Your task to perform on an android device: check google app version Image 0: 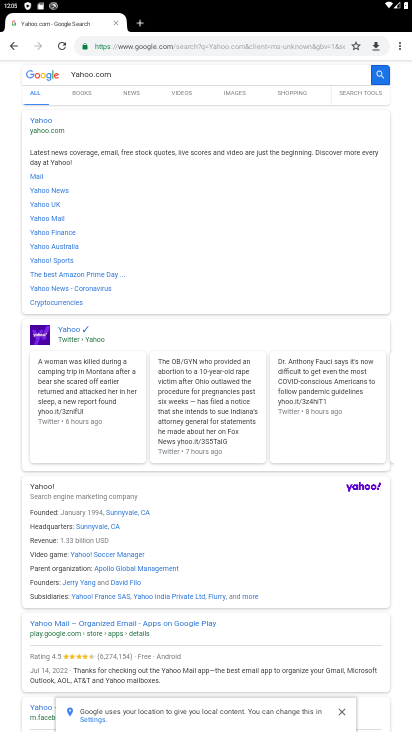
Step 0: press home button
Your task to perform on an android device: check google app version Image 1: 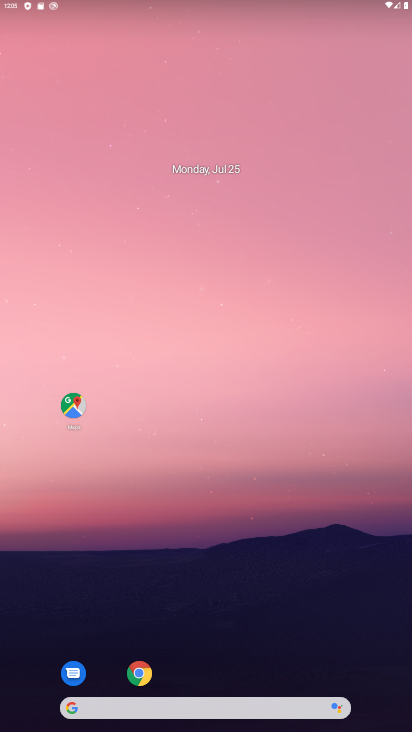
Step 1: drag from (231, 442) to (266, 199)
Your task to perform on an android device: check google app version Image 2: 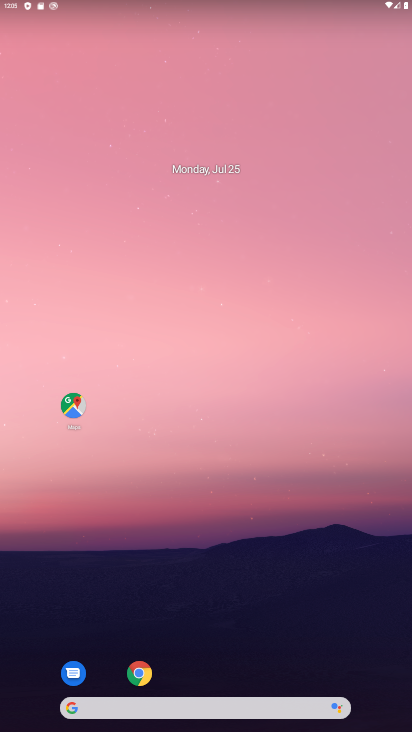
Step 2: drag from (234, 721) to (240, 153)
Your task to perform on an android device: check google app version Image 3: 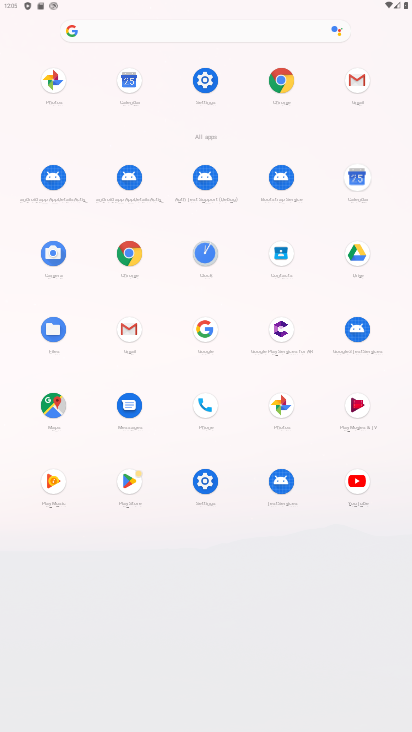
Step 3: click (204, 328)
Your task to perform on an android device: check google app version Image 4: 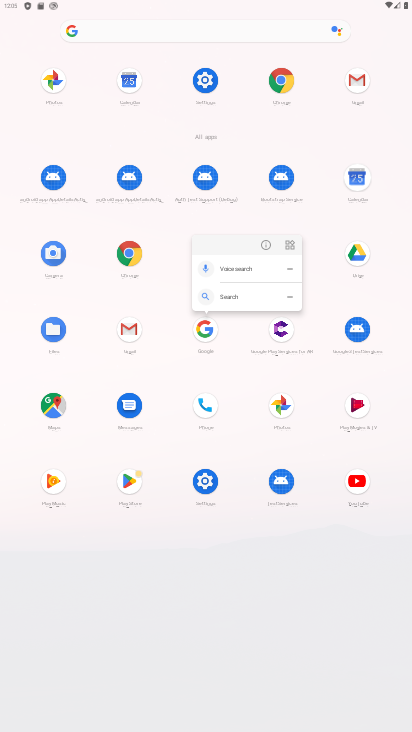
Step 4: click (268, 240)
Your task to perform on an android device: check google app version Image 5: 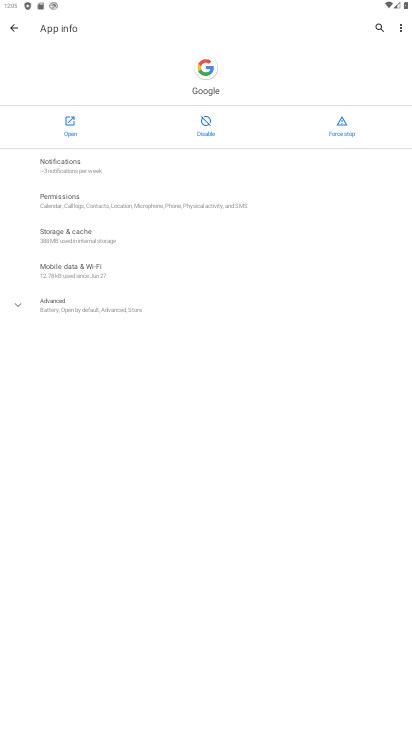
Step 5: click (164, 306)
Your task to perform on an android device: check google app version Image 6: 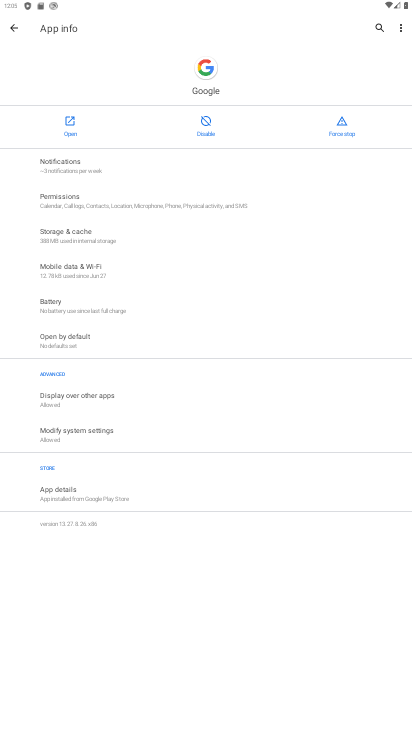
Step 6: task complete